Your task to perform on an android device: Turn on the flashlight Image 0: 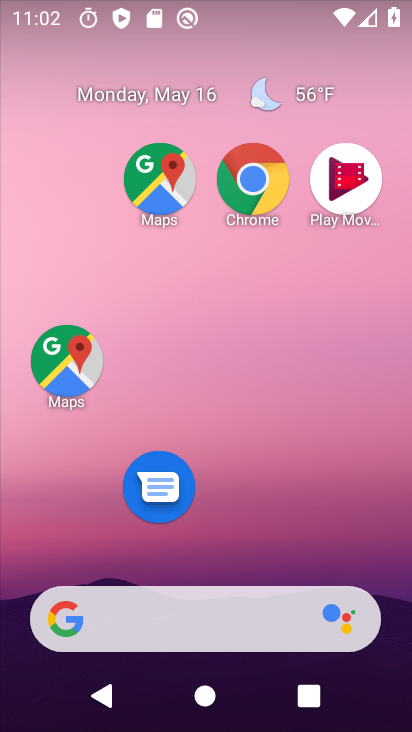
Step 0: drag from (224, 366) to (188, 59)
Your task to perform on an android device: Turn on the flashlight Image 1: 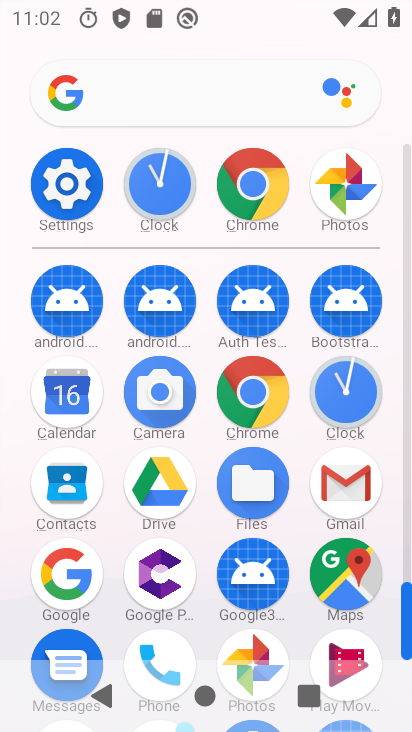
Step 1: click (69, 186)
Your task to perform on an android device: Turn on the flashlight Image 2: 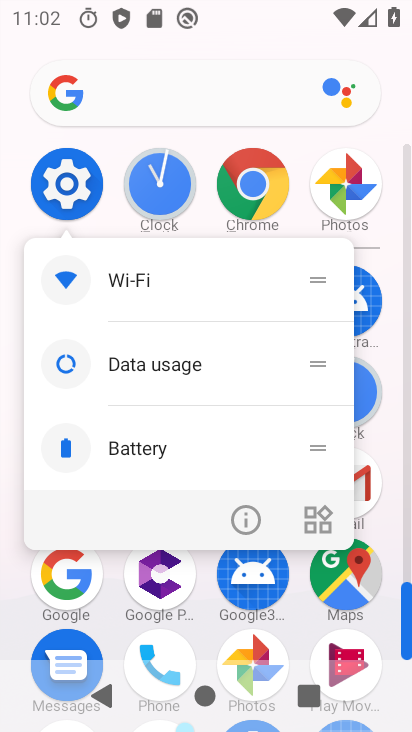
Step 2: click (68, 183)
Your task to perform on an android device: Turn on the flashlight Image 3: 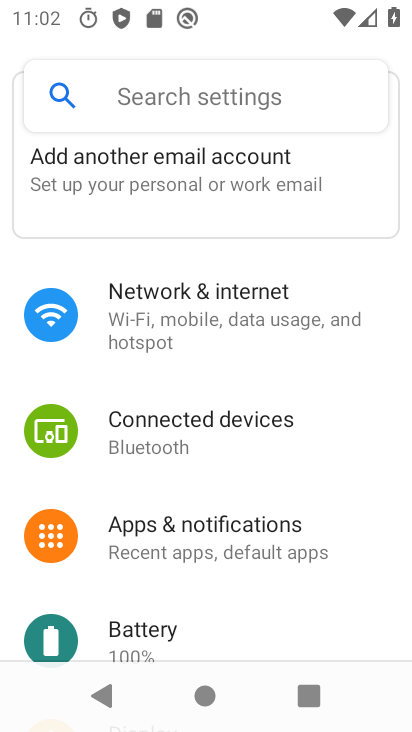
Step 3: task complete